Your task to perform on an android device: turn on translation in the chrome app Image 0: 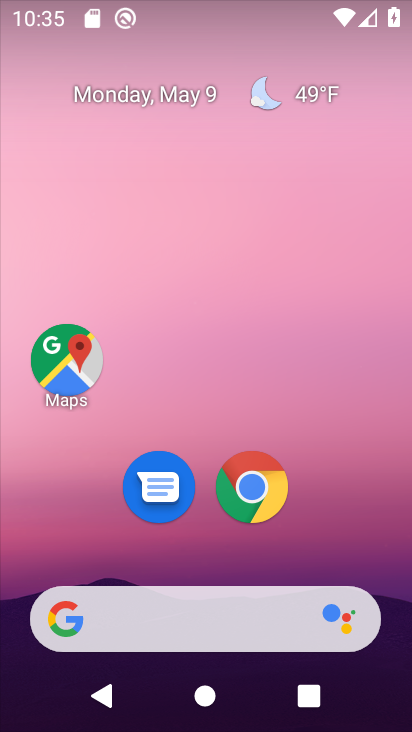
Step 0: click (262, 492)
Your task to perform on an android device: turn on translation in the chrome app Image 1: 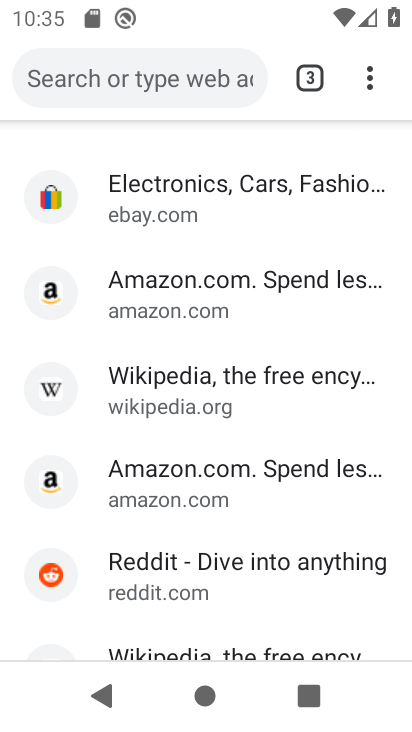
Step 1: click (367, 75)
Your task to perform on an android device: turn on translation in the chrome app Image 2: 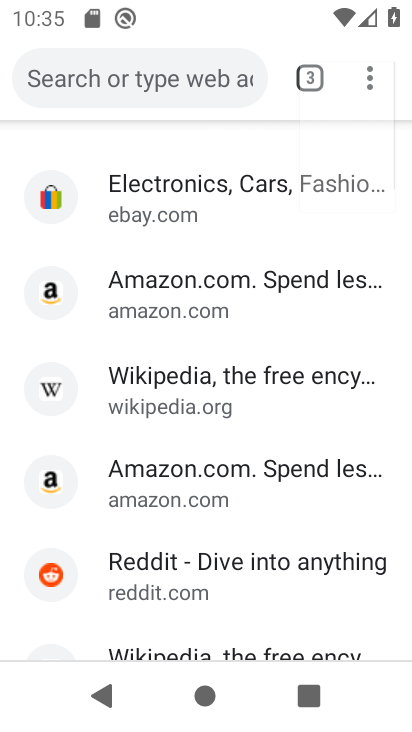
Step 2: drag from (367, 75) to (136, 551)
Your task to perform on an android device: turn on translation in the chrome app Image 3: 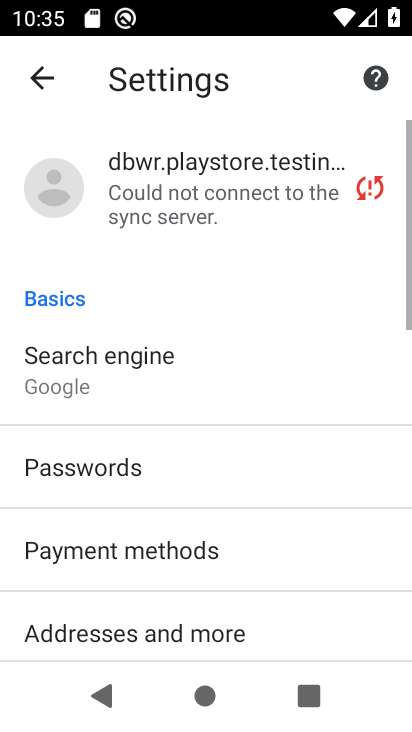
Step 3: drag from (136, 548) to (115, 180)
Your task to perform on an android device: turn on translation in the chrome app Image 4: 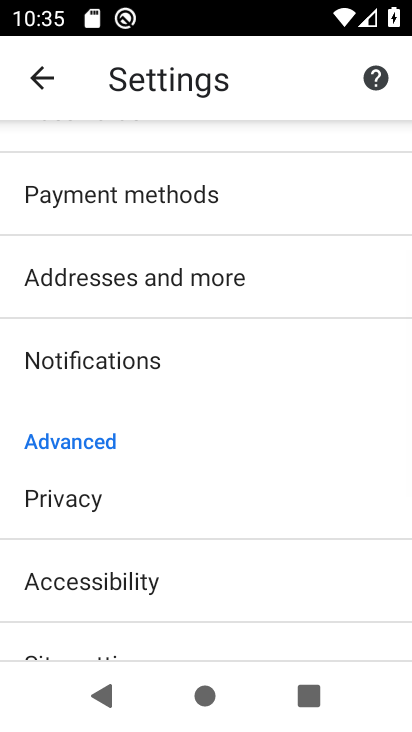
Step 4: drag from (141, 514) to (146, 376)
Your task to perform on an android device: turn on translation in the chrome app Image 5: 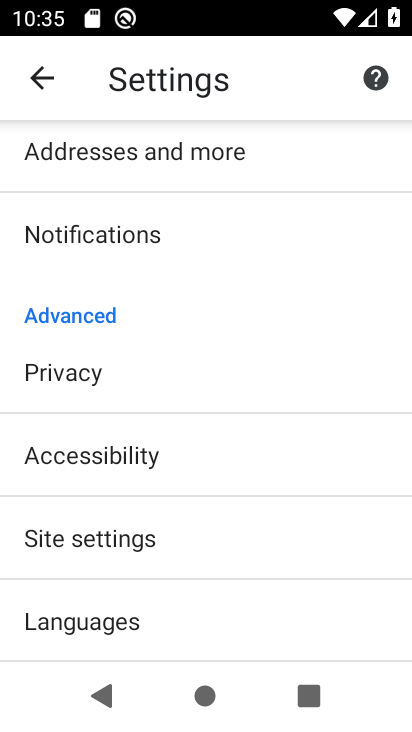
Step 5: click (66, 626)
Your task to perform on an android device: turn on translation in the chrome app Image 6: 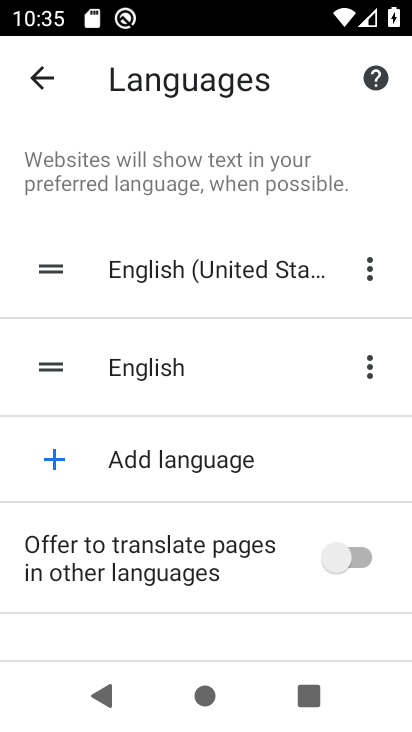
Step 6: click (328, 558)
Your task to perform on an android device: turn on translation in the chrome app Image 7: 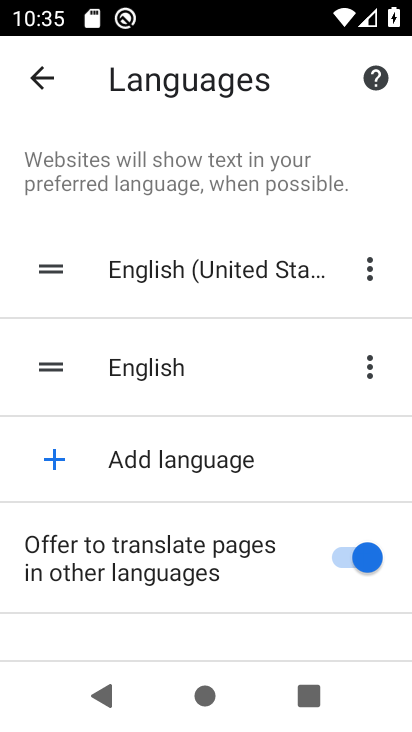
Step 7: task complete